Your task to perform on an android device: Open the map Image 0: 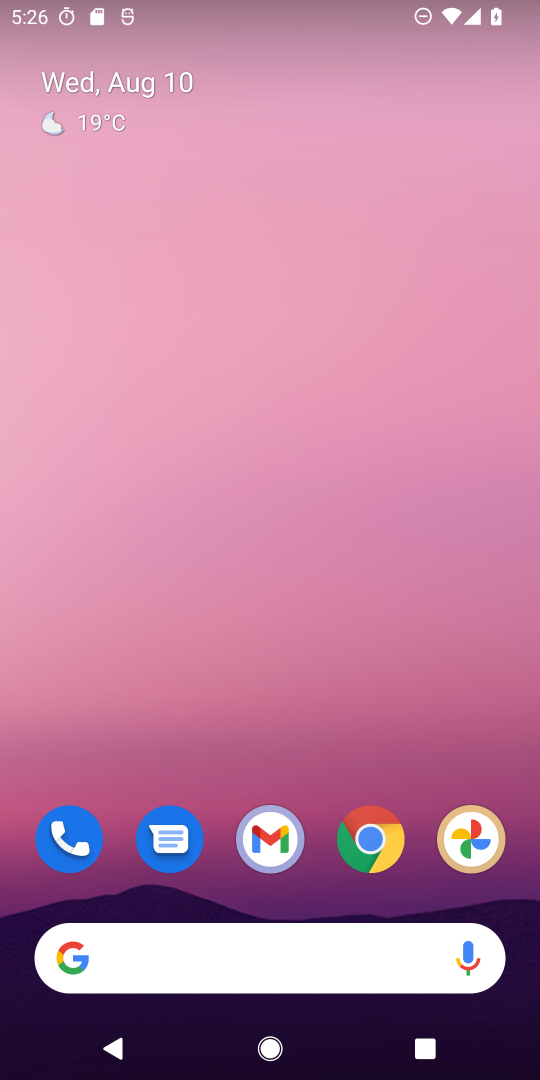
Step 0: drag from (41, 1024) to (311, 335)
Your task to perform on an android device: Open the map Image 1: 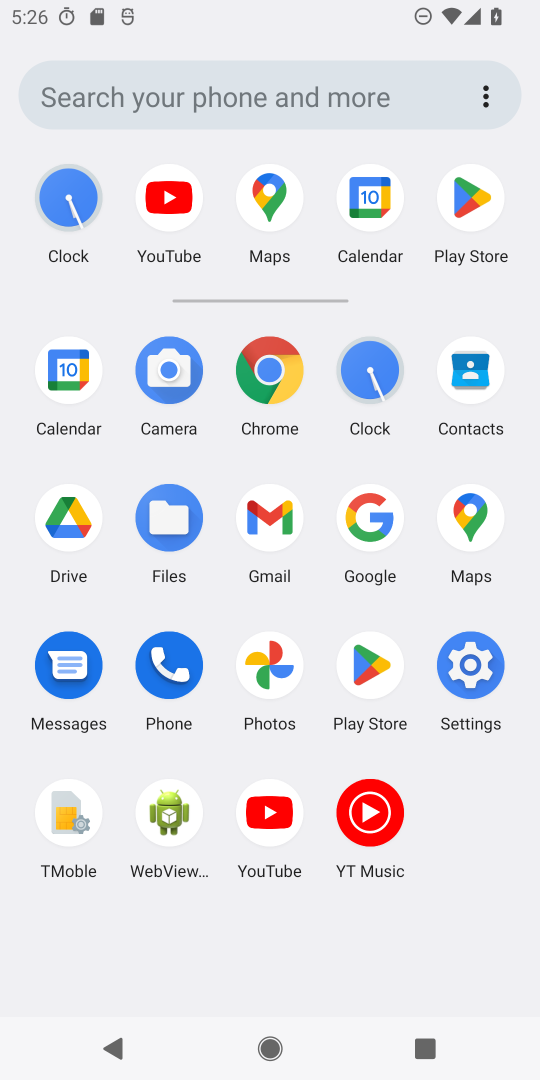
Step 1: click (468, 540)
Your task to perform on an android device: Open the map Image 2: 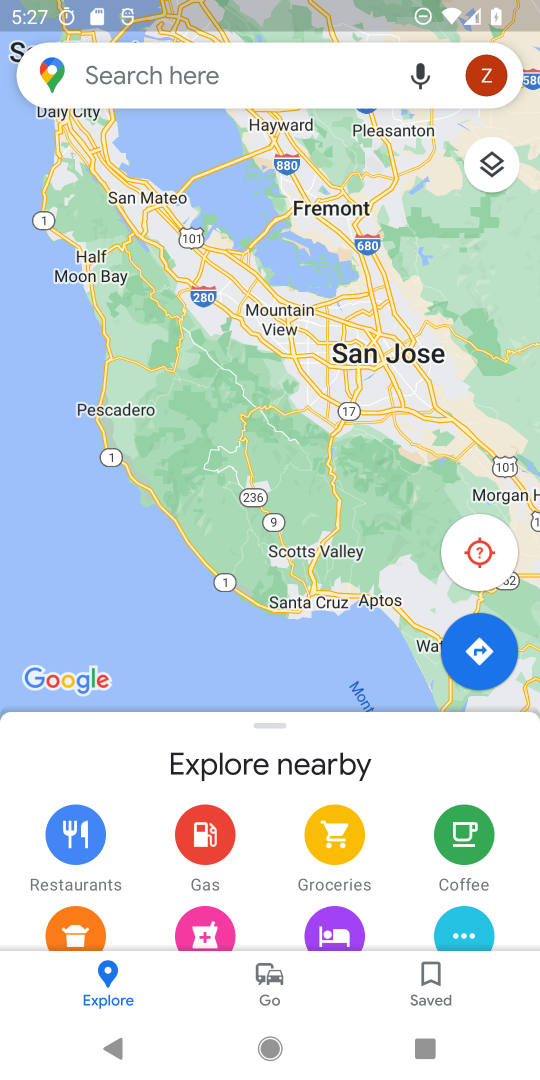
Step 2: task complete